Your task to perform on an android device: open a bookmark in the chrome app Image 0: 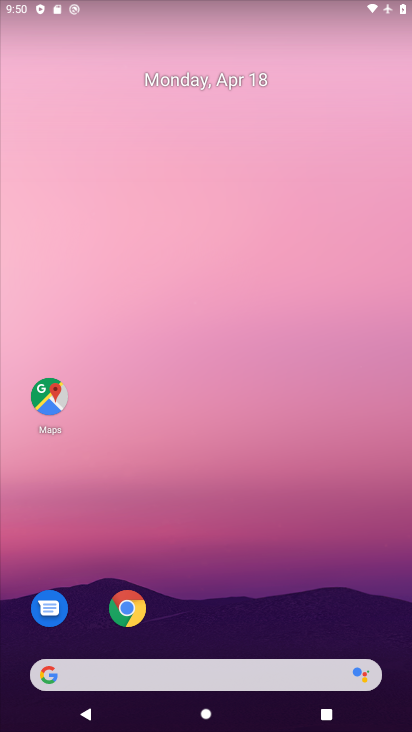
Step 0: click (145, 613)
Your task to perform on an android device: open a bookmark in the chrome app Image 1: 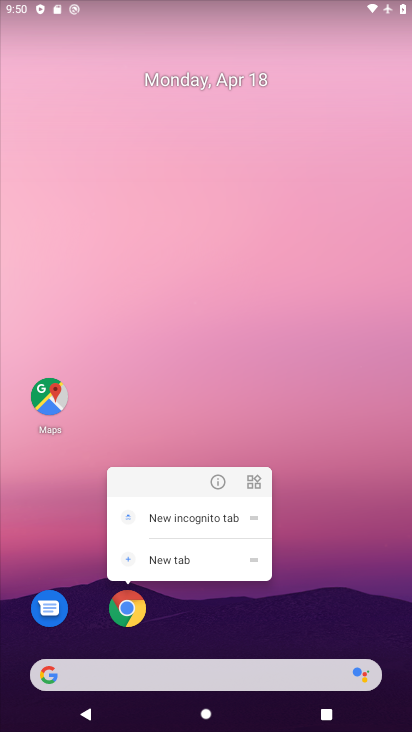
Step 1: click (133, 620)
Your task to perform on an android device: open a bookmark in the chrome app Image 2: 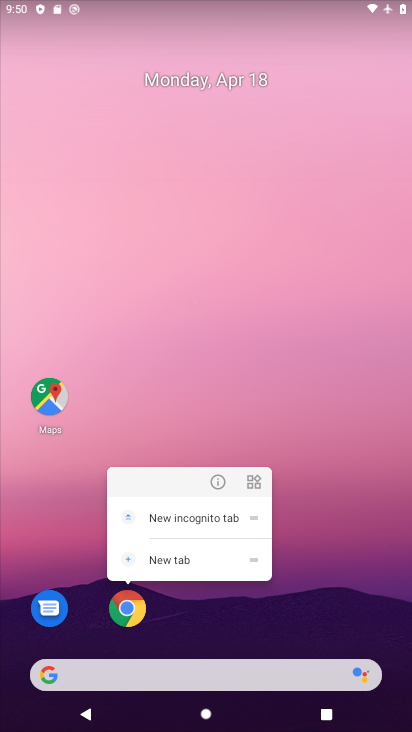
Step 2: click (119, 612)
Your task to perform on an android device: open a bookmark in the chrome app Image 3: 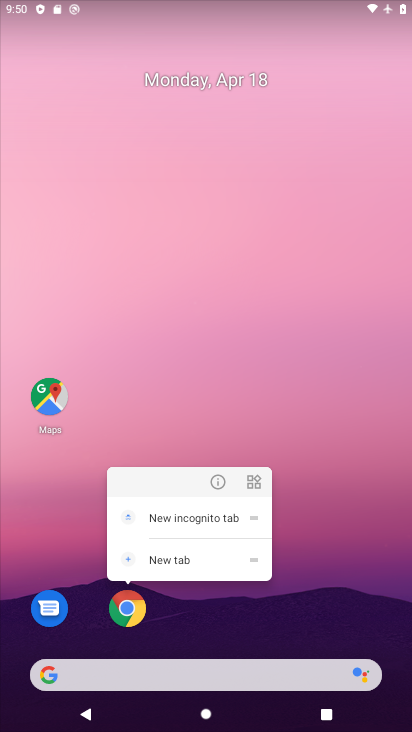
Step 3: click (124, 617)
Your task to perform on an android device: open a bookmark in the chrome app Image 4: 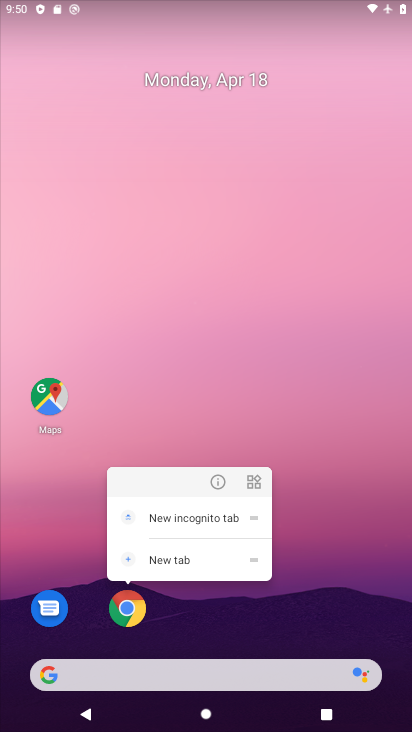
Step 4: click (120, 608)
Your task to perform on an android device: open a bookmark in the chrome app Image 5: 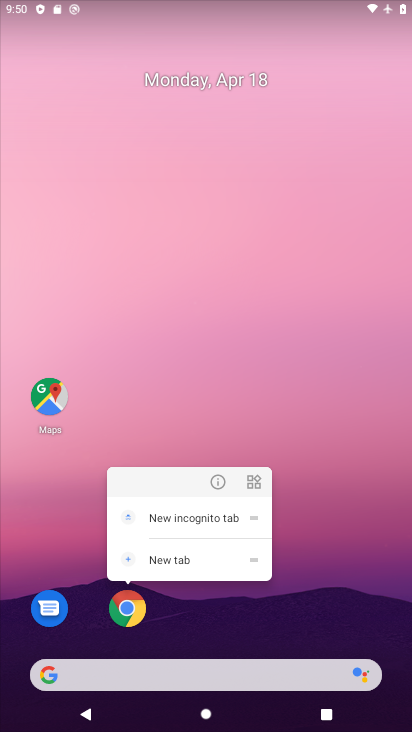
Step 5: click (129, 613)
Your task to perform on an android device: open a bookmark in the chrome app Image 6: 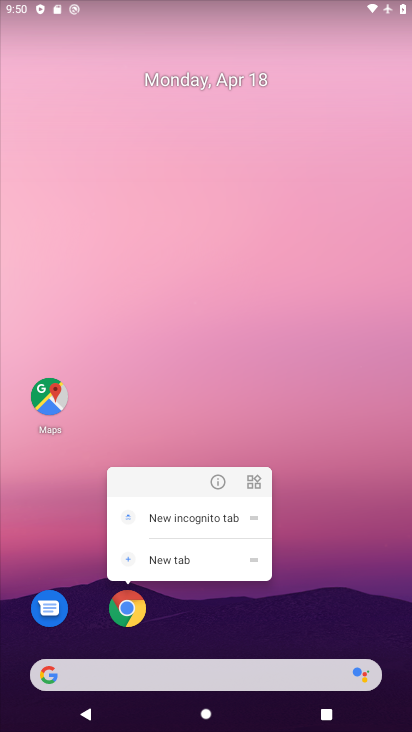
Step 6: click (129, 613)
Your task to perform on an android device: open a bookmark in the chrome app Image 7: 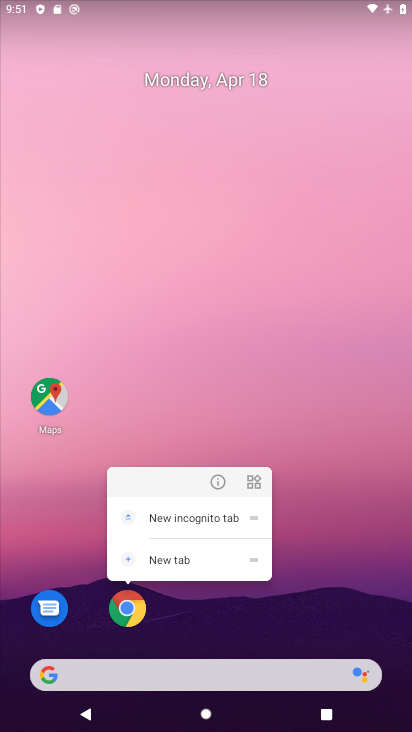
Step 7: click (138, 619)
Your task to perform on an android device: open a bookmark in the chrome app Image 8: 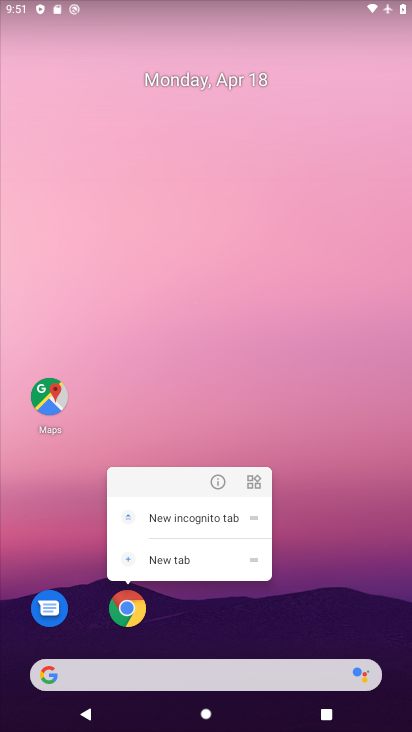
Step 8: click (138, 619)
Your task to perform on an android device: open a bookmark in the chrome app Image 9: 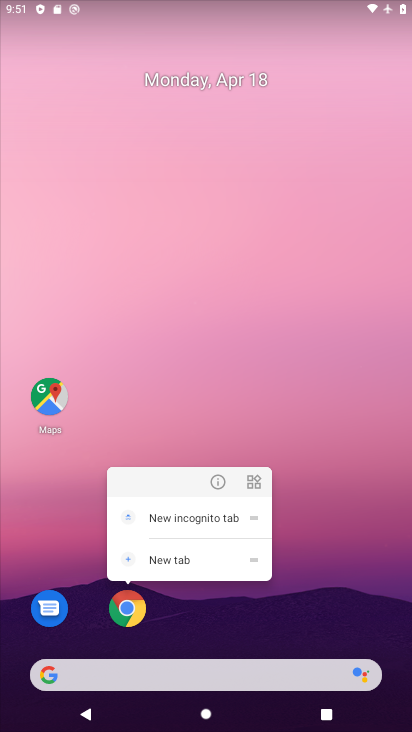
Step 9: click (140, 601)
Your task to perform on an android device: open a bookmark in the chrome app Image 10: 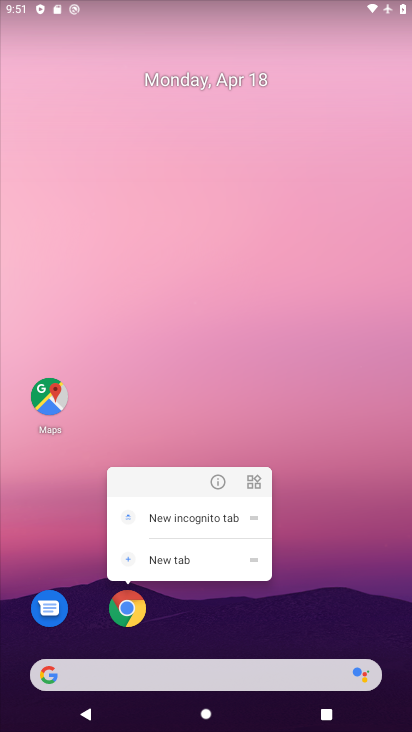
Step 10: click (133, 610)
Your task to perform on an android device: open a bookmark in the chrome app Image 11: 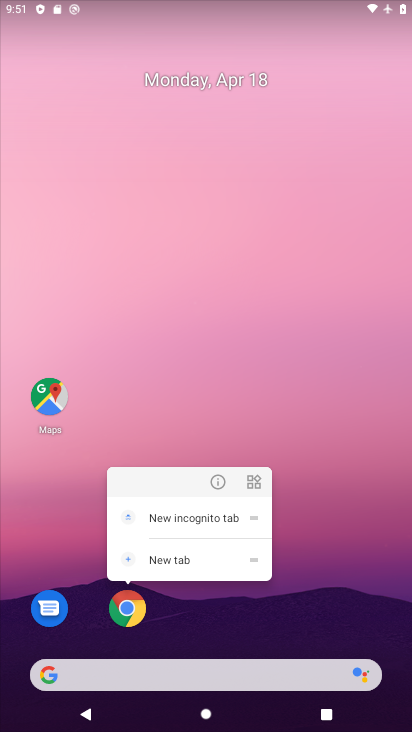
Step 11: click (133, 610)
Your task to perform on an android device: open a bookmark in the chrome app Image 12: 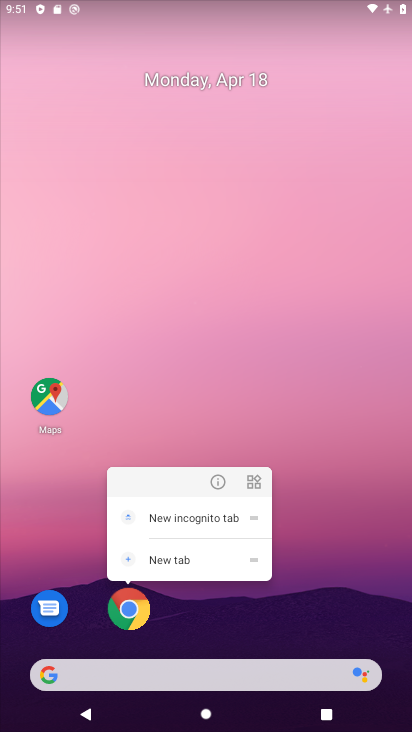
Step 12: click (133, 610)
Your task to perform on an android device: open a bookmark in the chrome app Image 13: 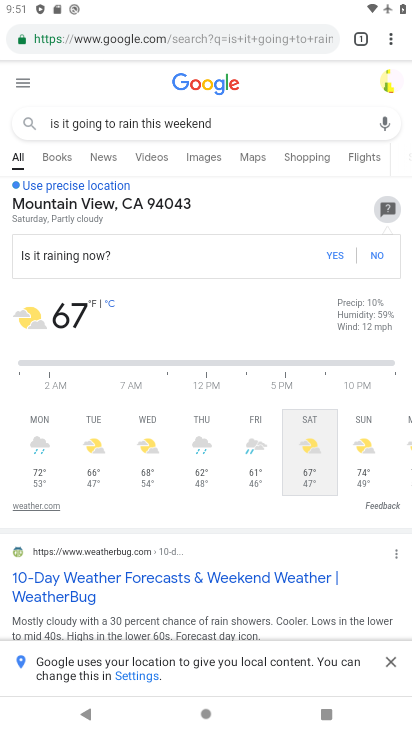
Step 13: click (210, 42)
Your task to perform on an android device: open a bookmark in the chrome app Image 14: 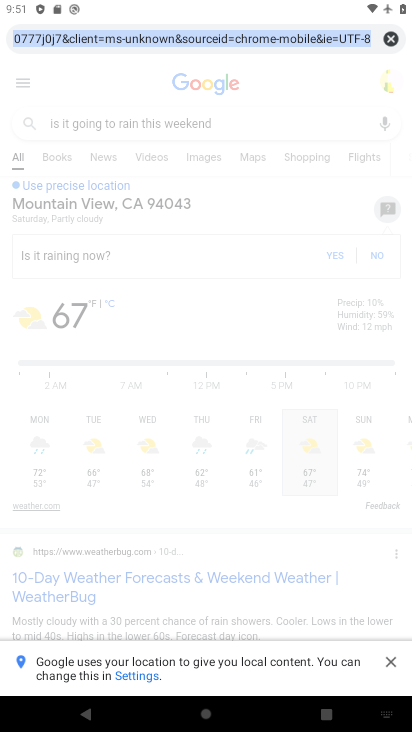
Step 14: click (391, 30)
Your task to perform on an android device: open a bookmark in the chrome app Image 15: 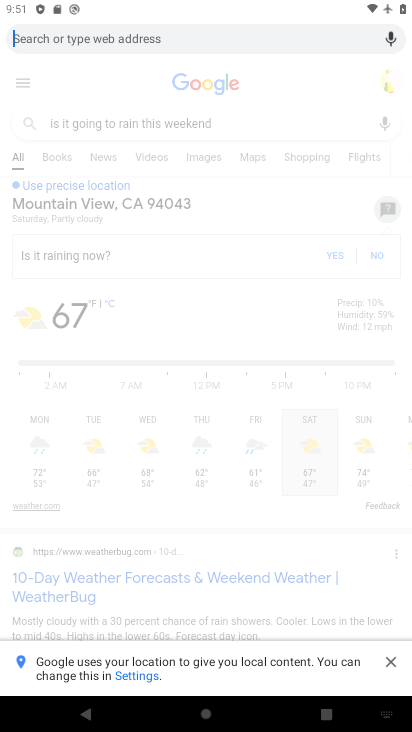
Step 15: click (389, 664)
Your task to perform on an android device: open a bookmark in the chrome app Image 16: 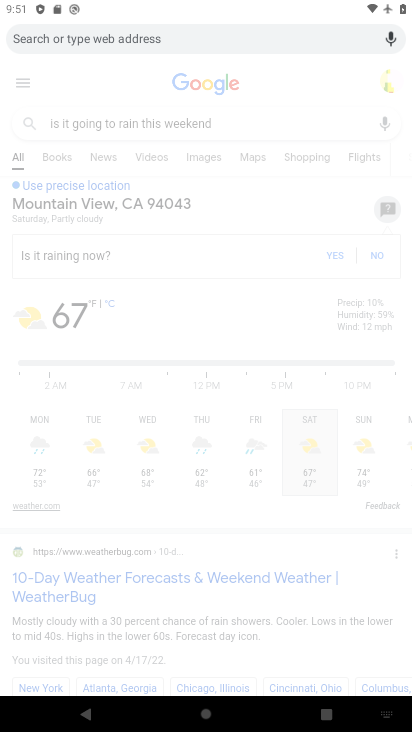
Step 16: click (350, 63)
Your task to perform on an android device: open a bookmark in the chrome app Image 17: 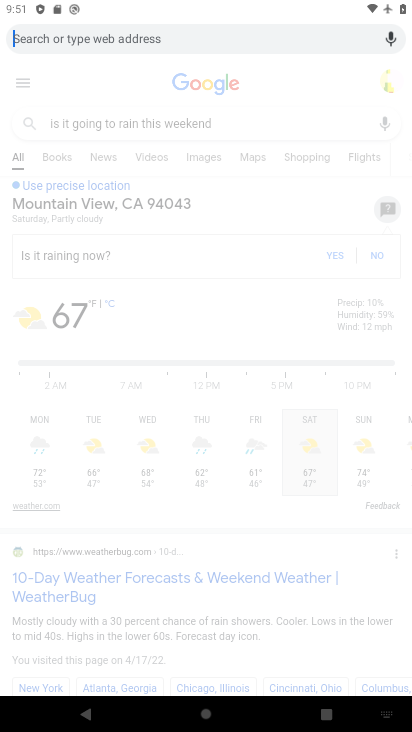
Step 17: click (341, 78)
Your task to perform on an android device: open a bookmark in the chrome app Image 18: 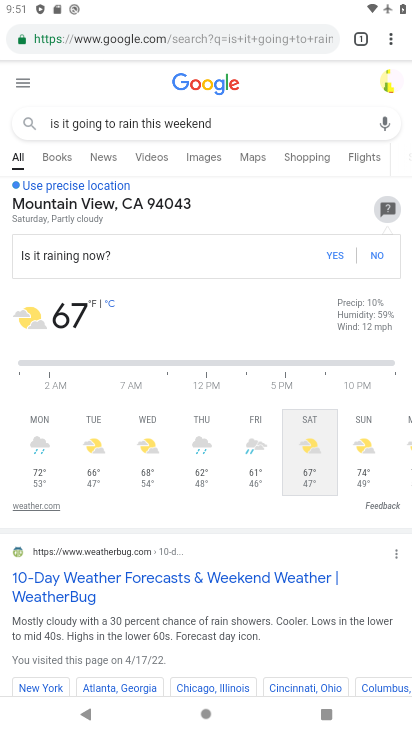
Step 18: press back button
Your task to perform on an android device: open a bookmark in the chrome app Image 19: 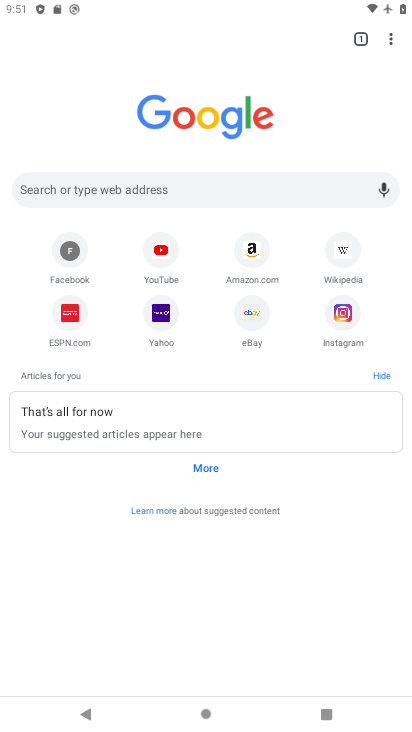
Step 19: click (390, 38)
Your task to perform on an android device: open a bookmark in the chrome app Image 20: 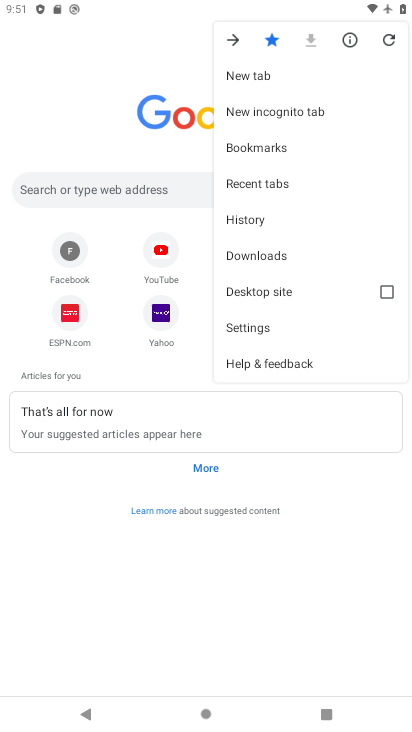
Step 20: click (274, 142)
Your task to perform on an android device: open a bookmark in the chrome app Image 21: 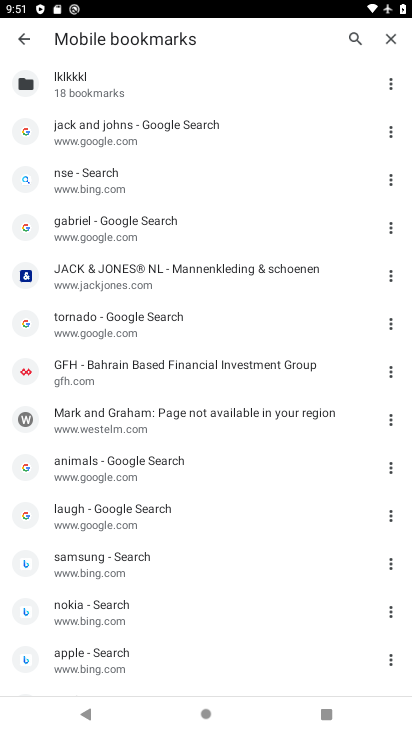
Step 21: click (113, 135)
Your task to perform on an android device: open a bookmark in the chrome app Image 22: 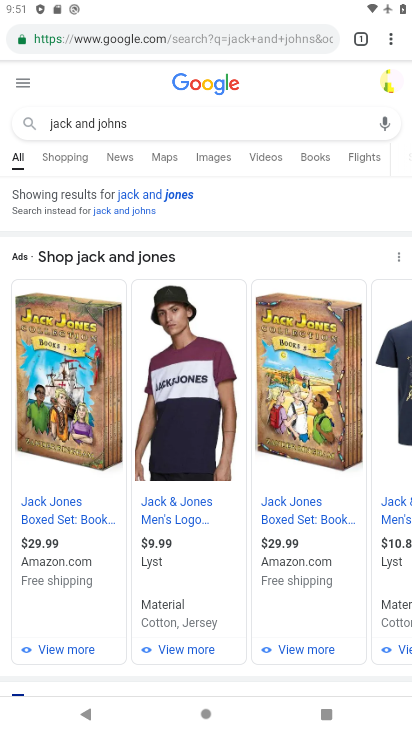
Step 22: task complete